Your task to perform on an android device: open a bookmark in the chrome app Image 0: 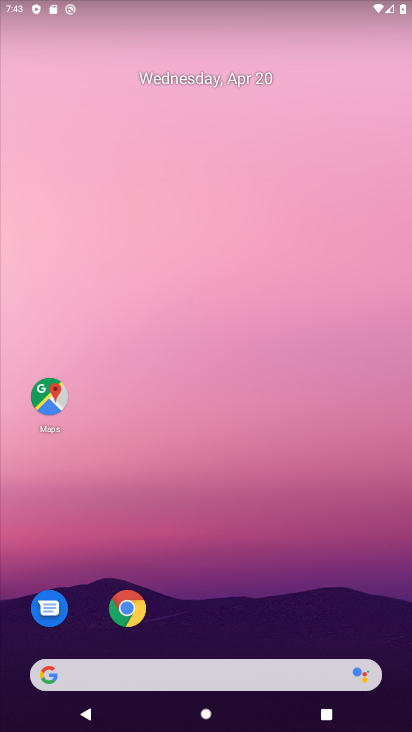
Step 0: drag from (151, 625) to (253, 99)
Your task to perform on an android device: open a bookmark in the chrome app Image 1: 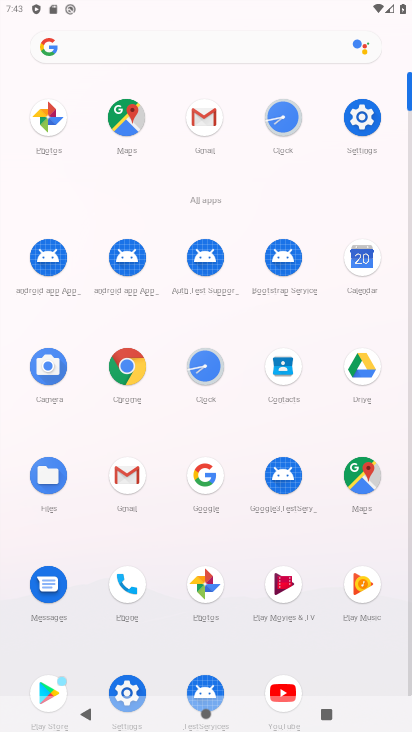
Step 1: click (130, 363)
Your task to perform on an android device: open a bookmark in the chrome app Image 2: 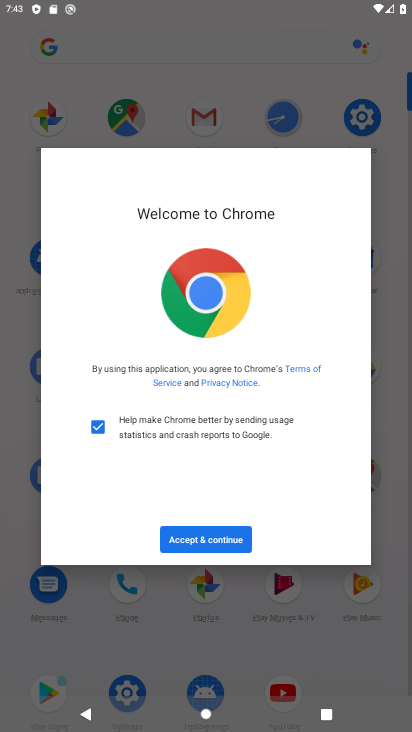
Step 2: click (215, 532)
Your task to perform on an android device: open a bookmark in the chrome app Image 3: 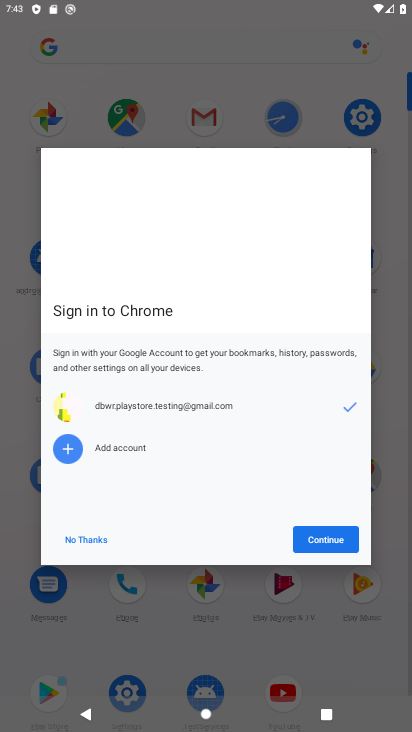
Step 3: click (333, 539)
Your task to perform on an android device: open a bookmark in the chrome app Image 4: 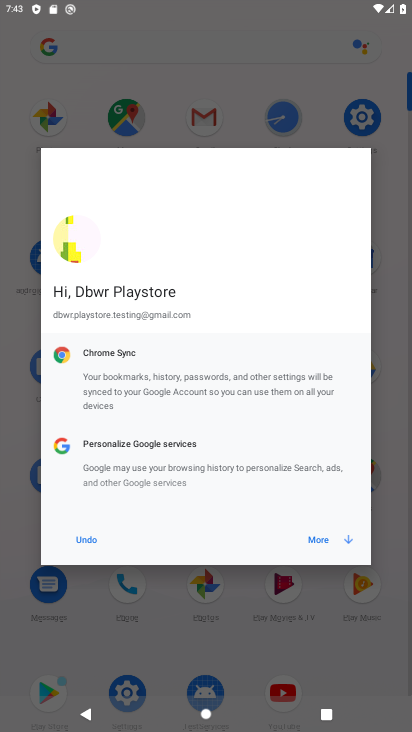
Step 4: click (330, 540)
Your task to perform on an android device: open a bookmark in the chrome app Image 5: 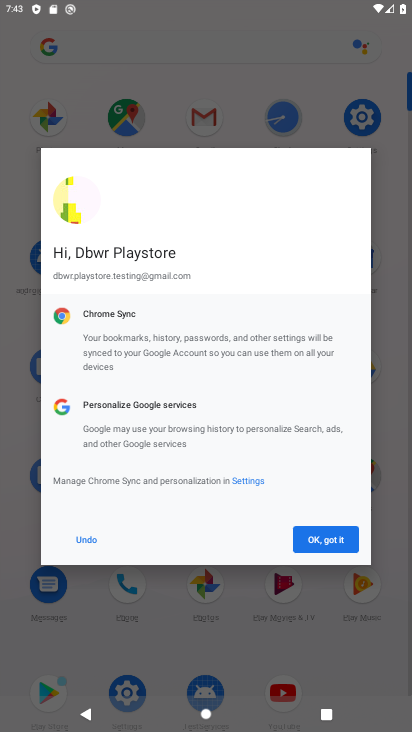
Step 5: click (328, 536)
Your task to perform on an android device: open a bookmark in the chrome app Image 6: 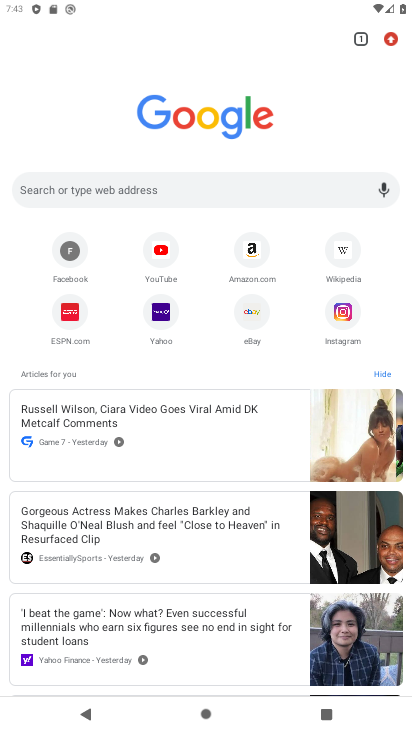
Step 6: click (392, 37)
Your task to perform on an android device: open a bookmark in the chrome app Image 7: 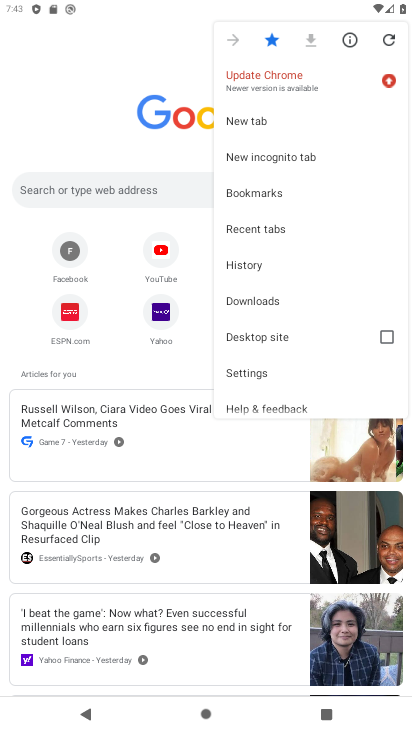
Step 7: click (255, 204)
Your task to perform on an android device: open a bookmark in the chrome app Image 8: 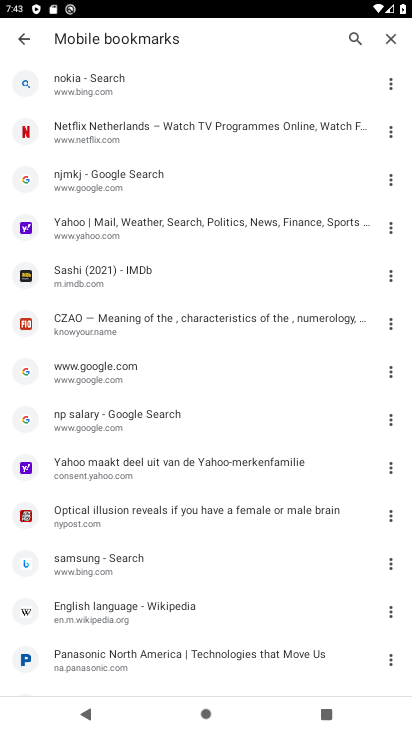
Step 8: task complete